Your task to perform on an android device: Toggle the flashlight Image 0: 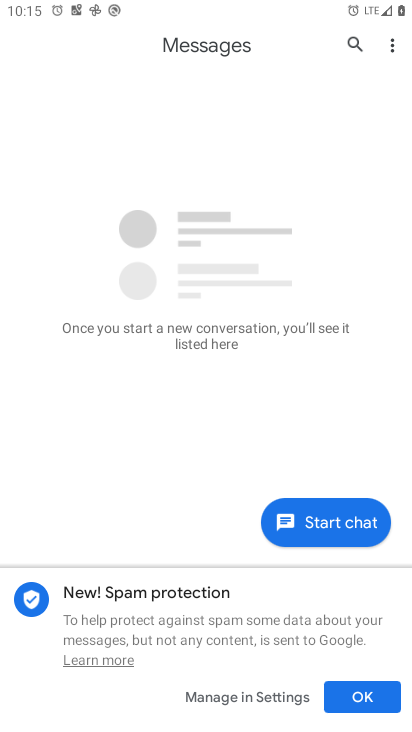
Step 0: drag from (203, 1) to (192, 294)
Your task to perform on an android device: Toggle the flashlight Image 1: 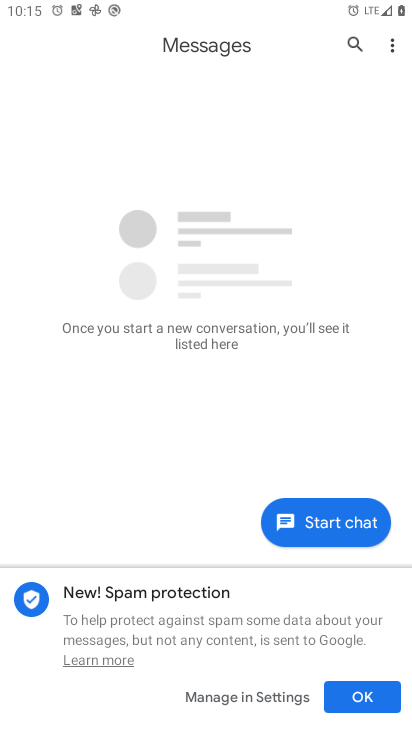
Step 1: task complete